Your task to perform on an android device: open app "Contacts" Image 0: 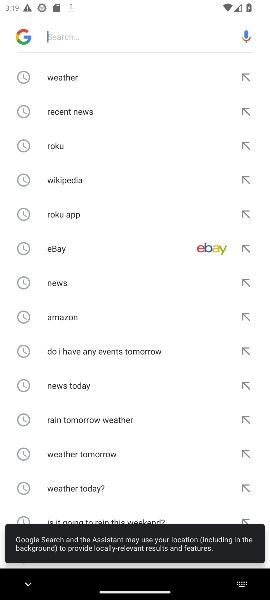
Step 0: press home button
Your task to perform on an android device: open app "Contacts" Image 1: 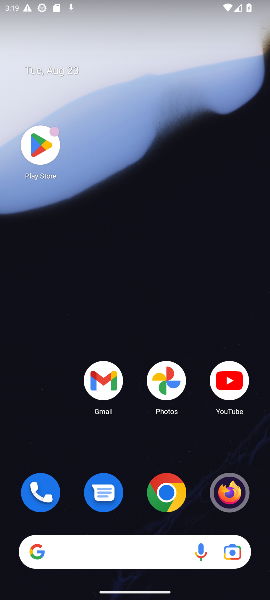
Step 1: drag from (131, 520) to (186, 123)
Your task to perform on an android device: open app "Contacts" Image 2: 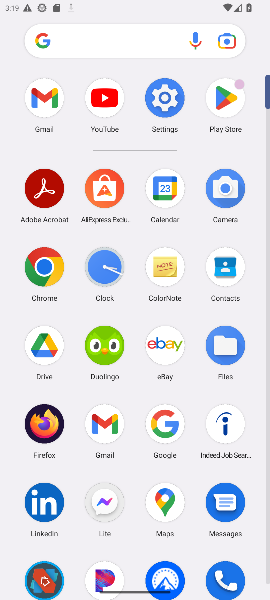
Step 2: click (218, 284)
Your task to perform on an android device: open app "Contacts" Image 3: 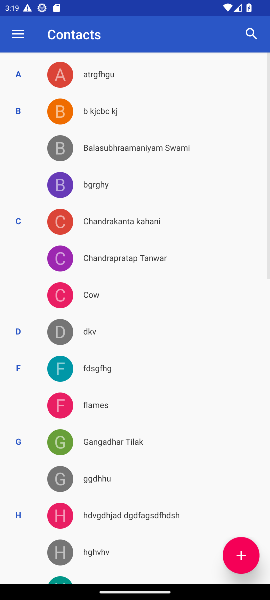
Step 3: task complete